Your task to perform on an android device: Open Android settings Image 0: 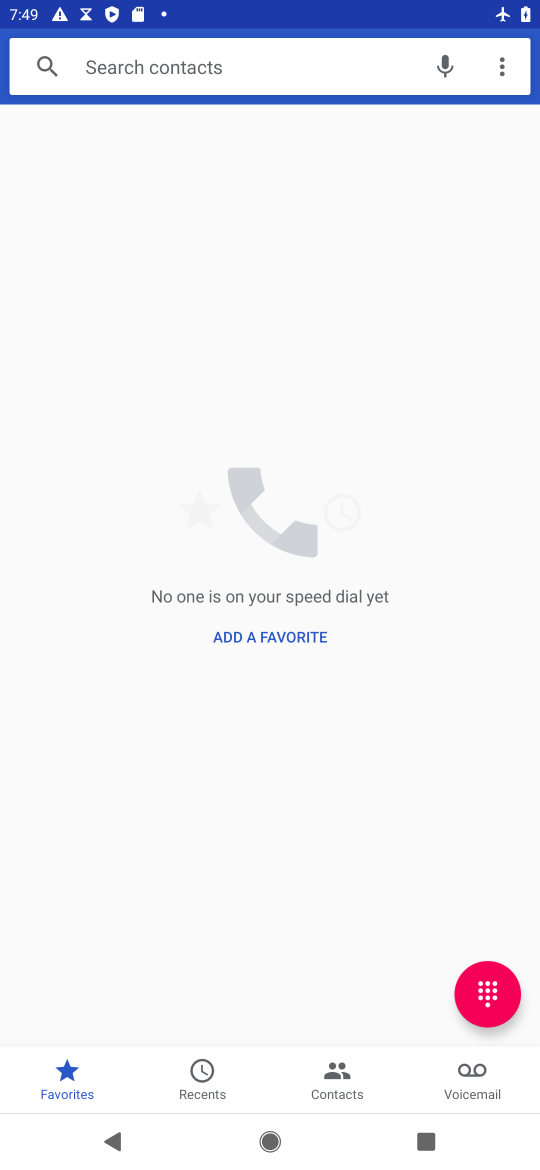
Step 0: press home button
Your task to perform on an android device: Open Android settings Image 1: 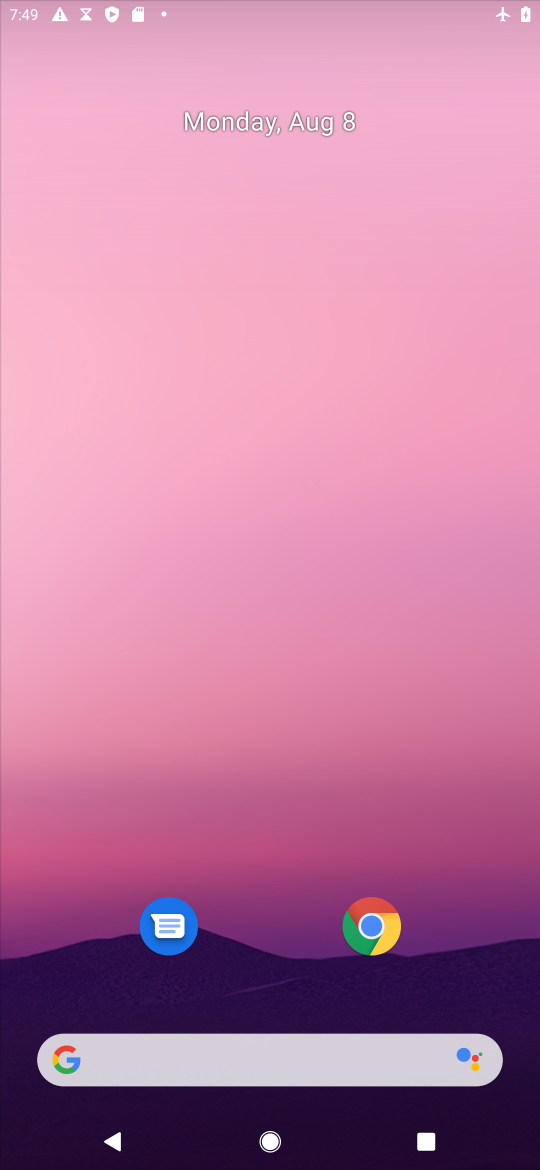
Step 1: drag from (209, 989) to (275, 177)
Your task to perform on an android device: Open Android settings Image 2: 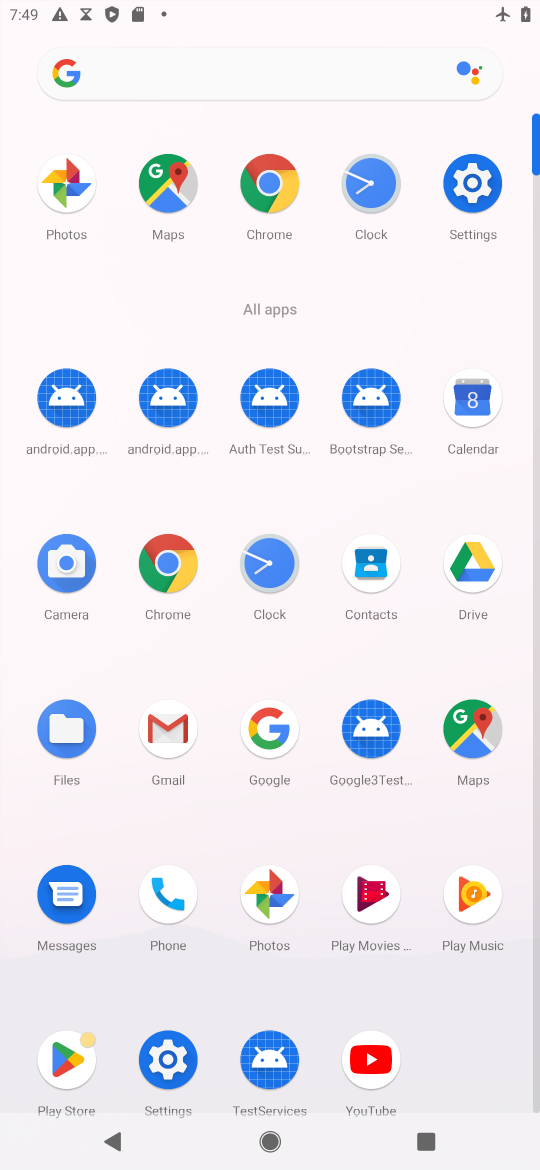
Step 2: click (187, 1056)
Your task to perform on an android device: Open Android settings Image 3: 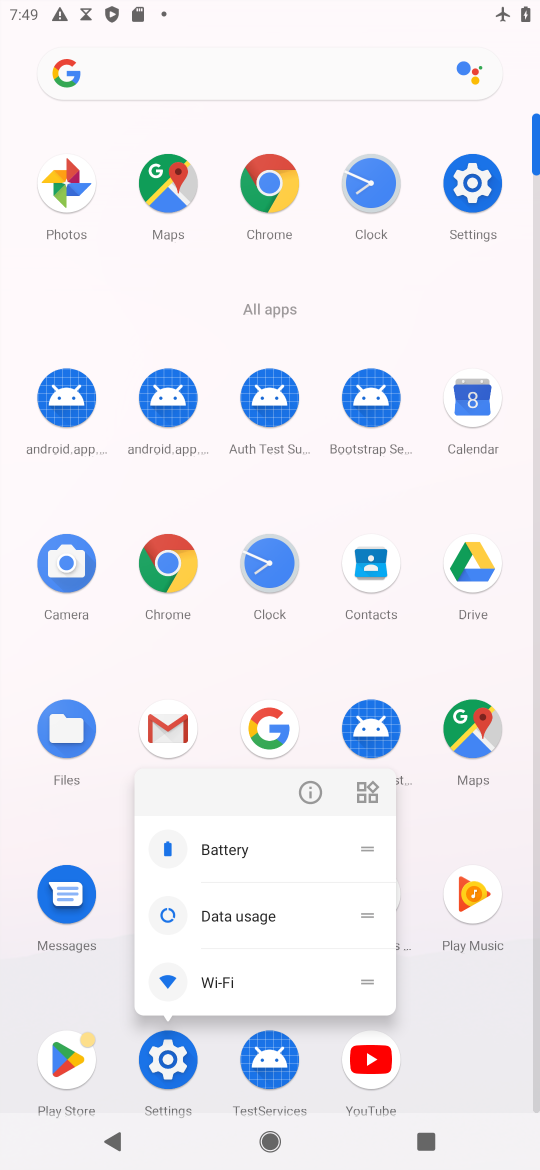
Step 3: click (158, 1062)
Your task to perform on an android device: Open Android settings Image 4: 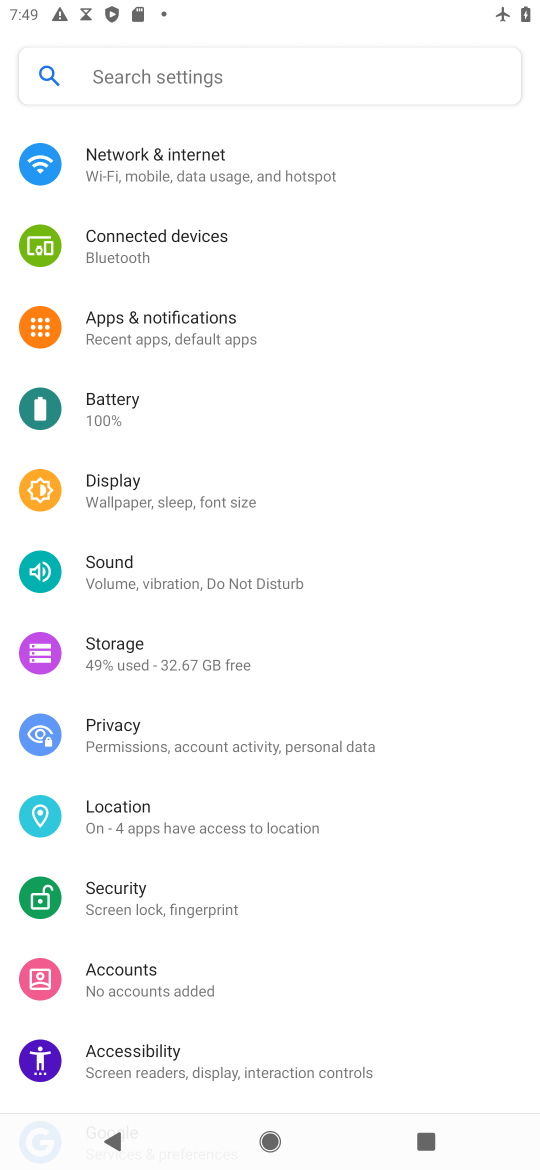
Step 4: drag from (173, 995) to (256, 347)
Your task to perform on an android device: Open Android settings Image 5: 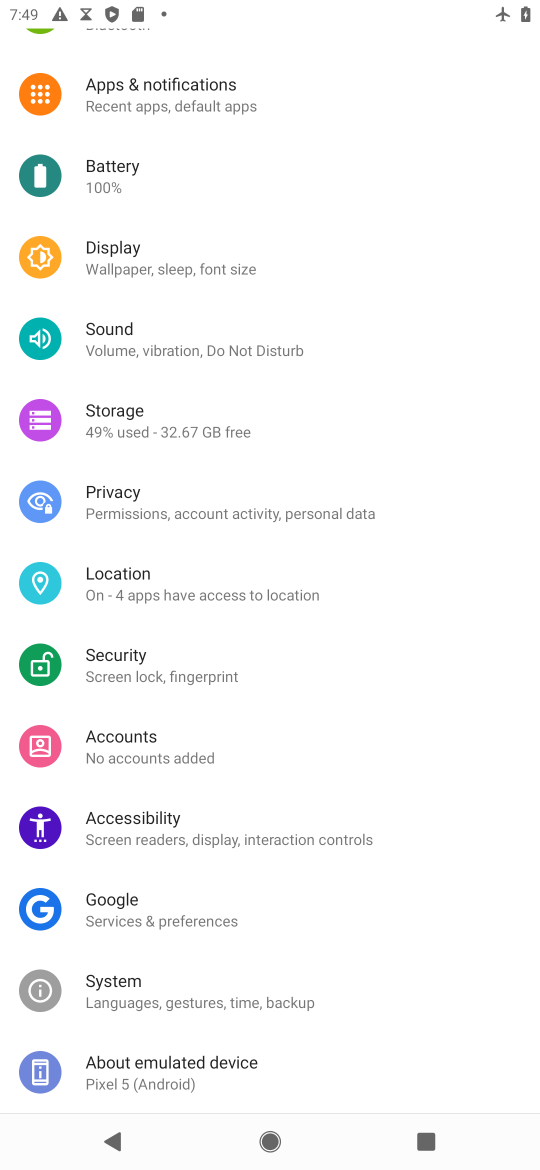
Step 5: click (144, 1070)
Your task to perform on an android device: Open Android settings Image 6: 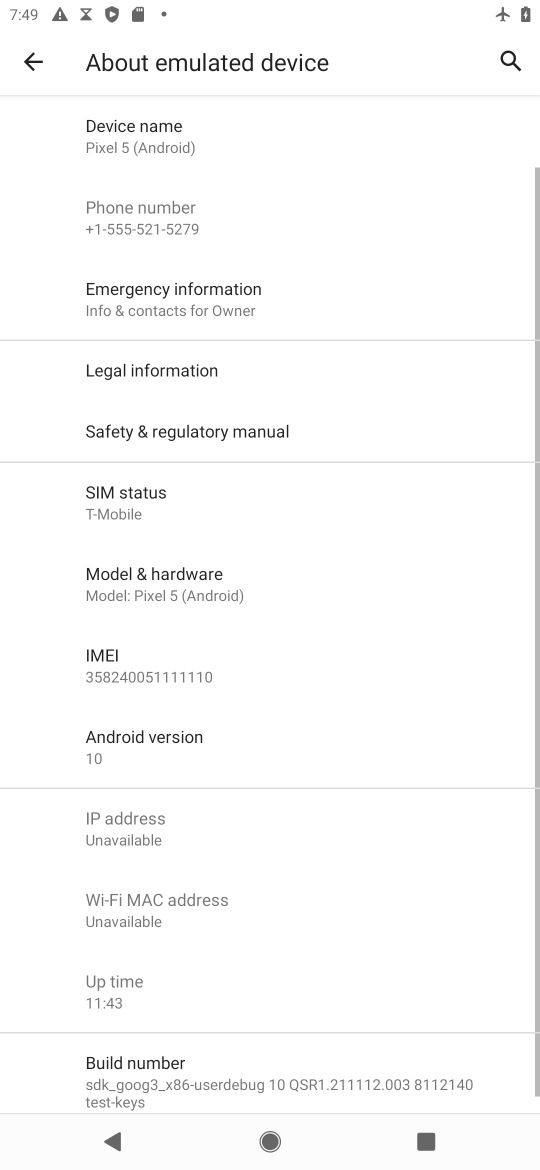
Step 6: drag from (337, 948) to (337, 694)
Your task to perform on an android device: Open Android settings Image 7: 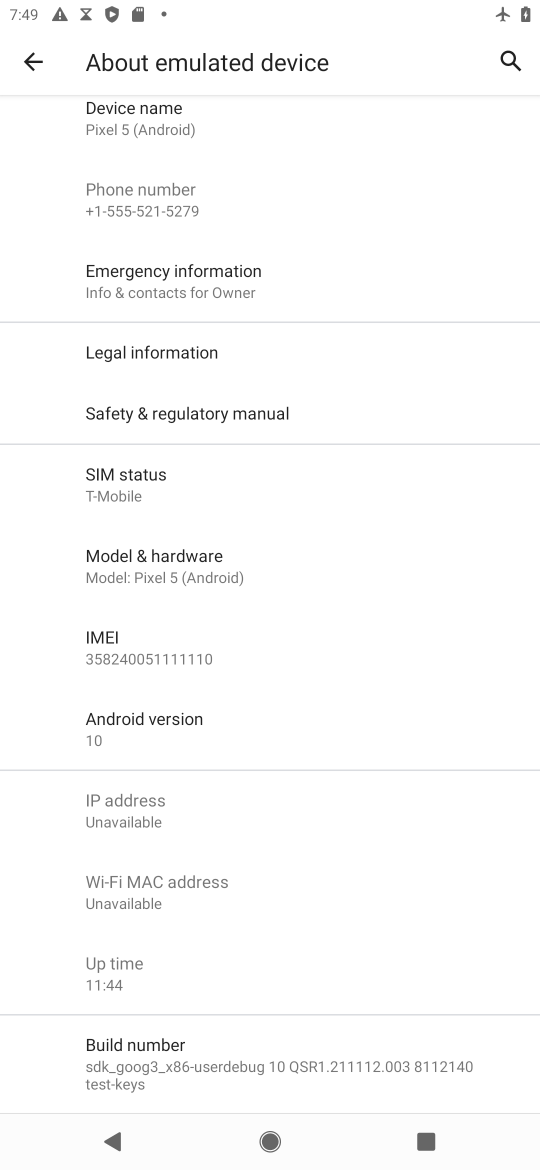
Step 7: click (158, 712)
Your task to perform on an android device: Open Android settings Image 8: 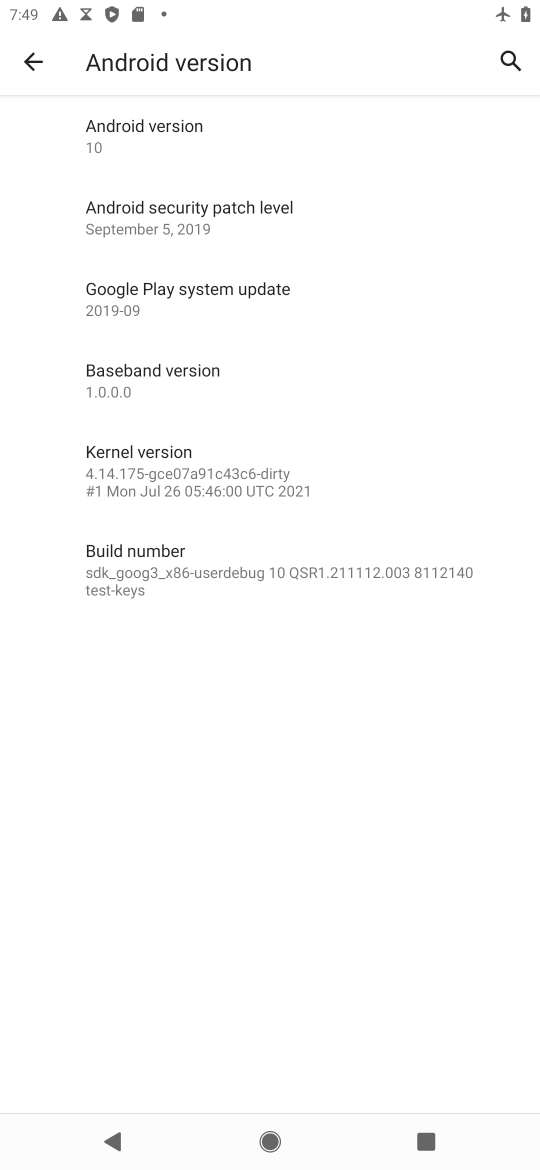
Step 8: task complete